Your task to perform on an android device: toggle improve location accuracy Image 0: 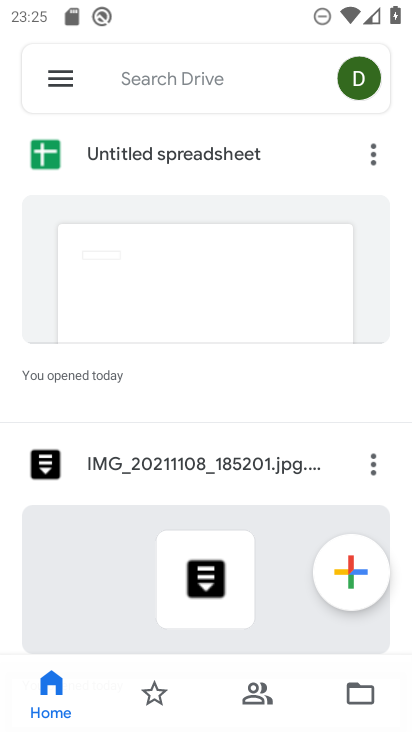
Step 0: press home button
Your task to perform on an android device: toggle improve location accuracy Image 1: 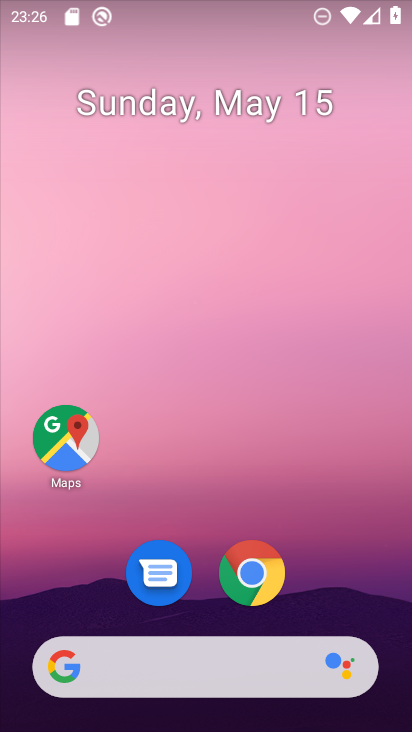
Step 1: drag from (357, 584) to (309, 5)
Your task to perform on an android device: toggle improve location accuracy Image 2: 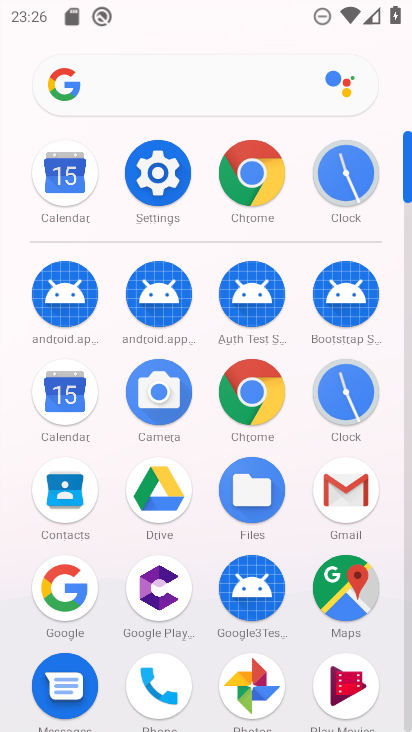
Step 2: click (146, 171)
Your task to perform on an android device: toggle improve location accuracy Image 3: 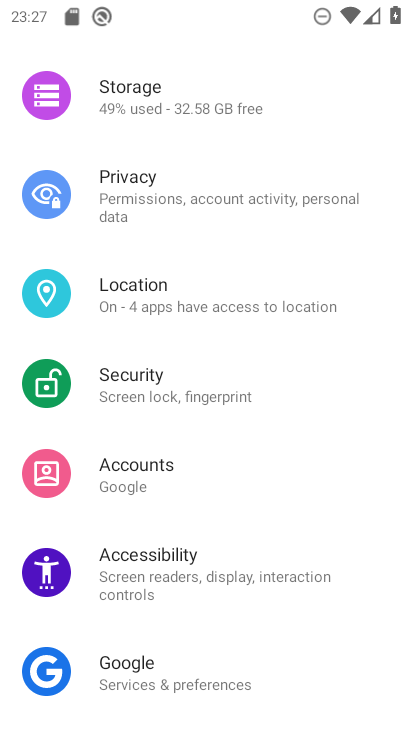
Step 3: click (139, 284)
Your task to perform on an android device: toggle improve location accuracy Image 4: 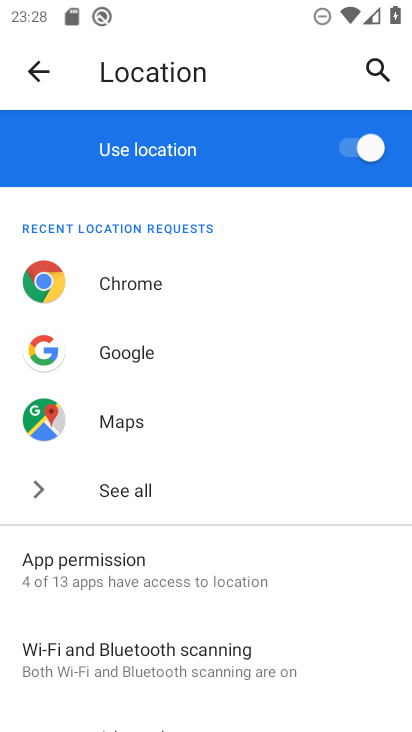
Step 4: drag from (201, 588) to (160, 94)
Your task to perform on an android device: toggle improve location accuracy Image 5: 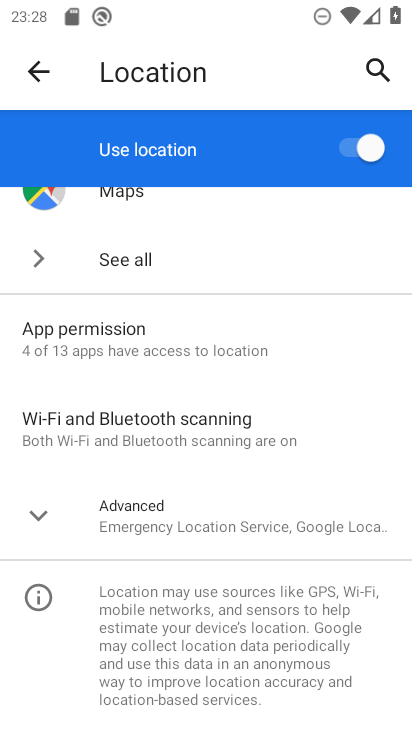
Step 5: click (222, 511)
Your task to perform on an android device: toggle improve location accuracy Image 6: 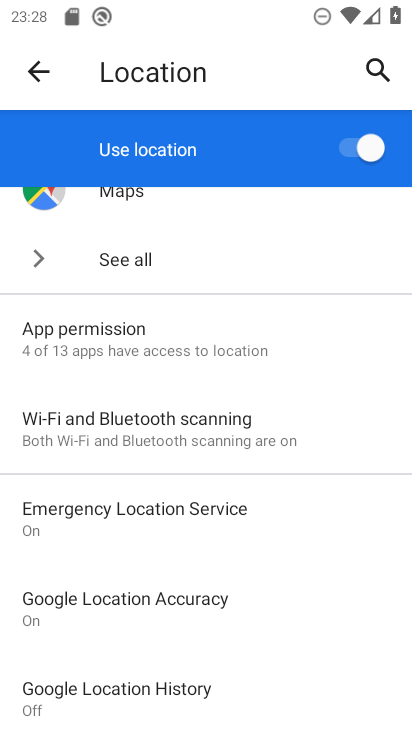
Step 6: click (131, 595)
Your task to perform on an android device: toggle improve location accuracy Image 7: 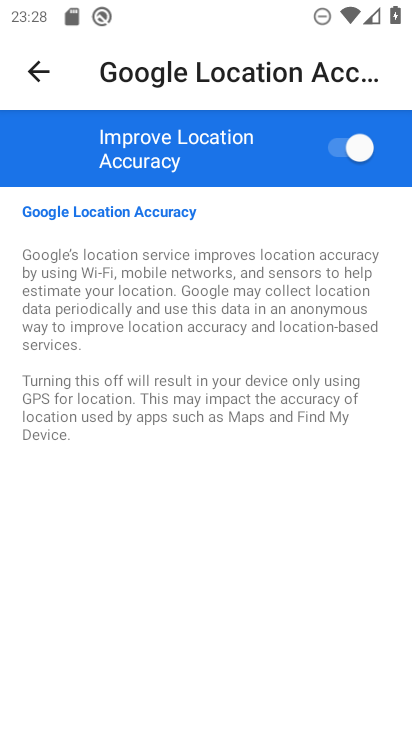
Step 7: task complete